Your task to perform on an android device: Open wifi settings Image 0: 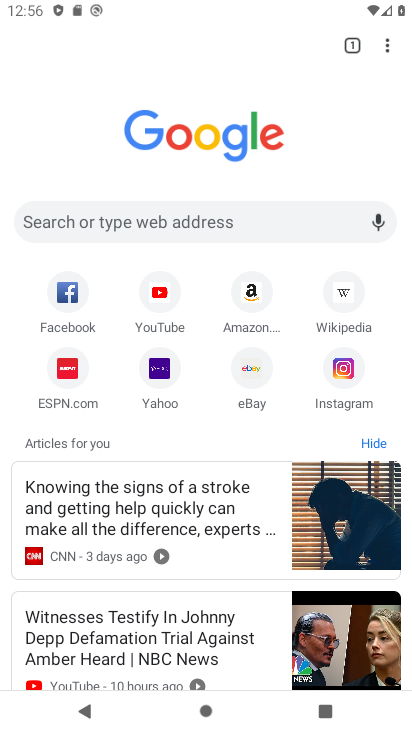
Step 0: drag from (158, 474) to (15, 393)
Your task to perform on an android device: Open wifi settings Image 1: 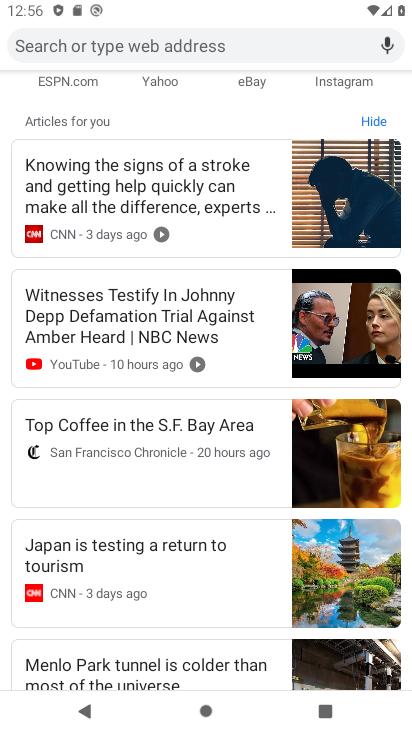
Step 1: drag from (123, 9) to (90, 650)
Your task to perform on an android device: Open wifi settings Image 2: 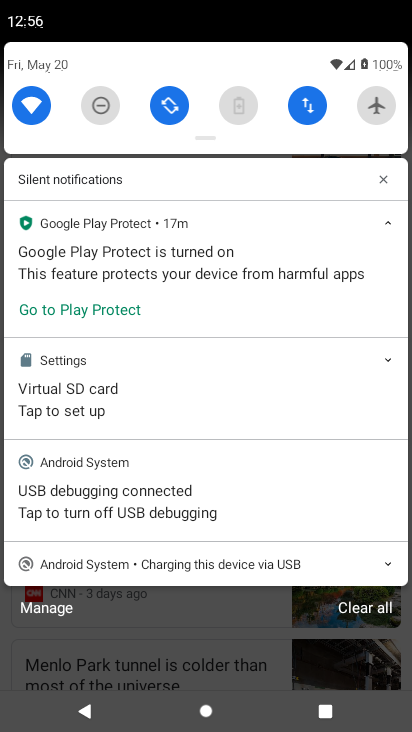
Step 2: click (37, 111)
Your task to perform on an android device: Open wifi settings Image 3: 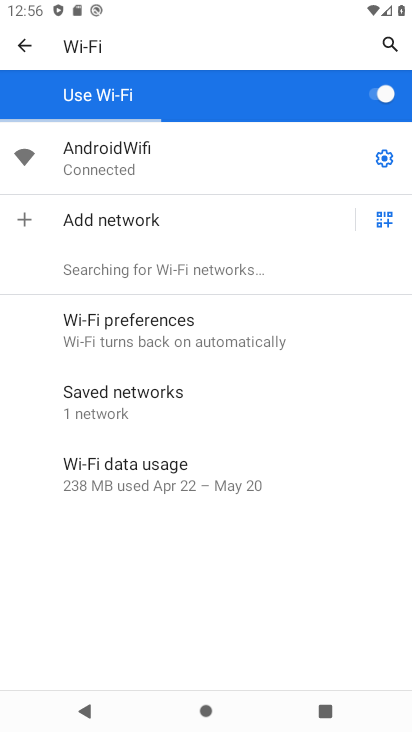
Step 3: task complete